Your task to perform on an android device: open a bookmark in the chrome app Image 0: 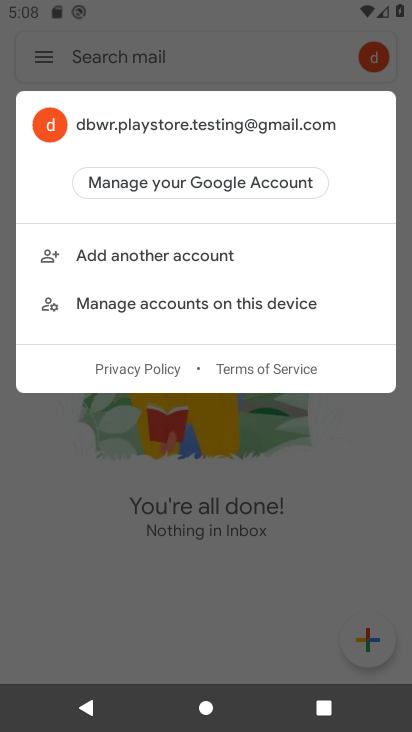
Step 0: press home button
Your task to perform on an android device: open a bookmark in the chrome app Image 1: 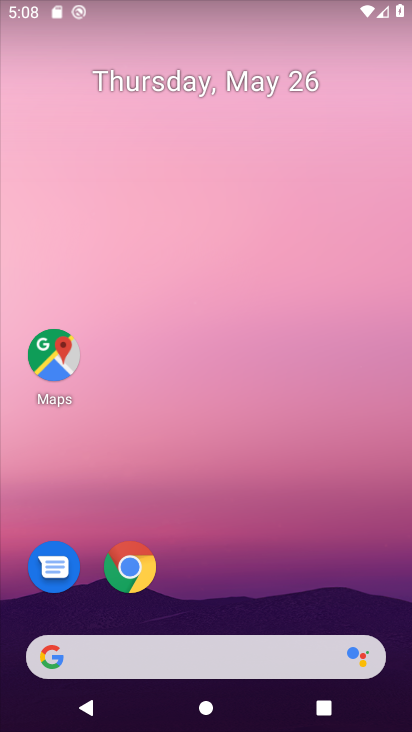
Step 1: click (121, 579)
Your task to perform on an android device: open a bookmark in the chrome app Image 2: 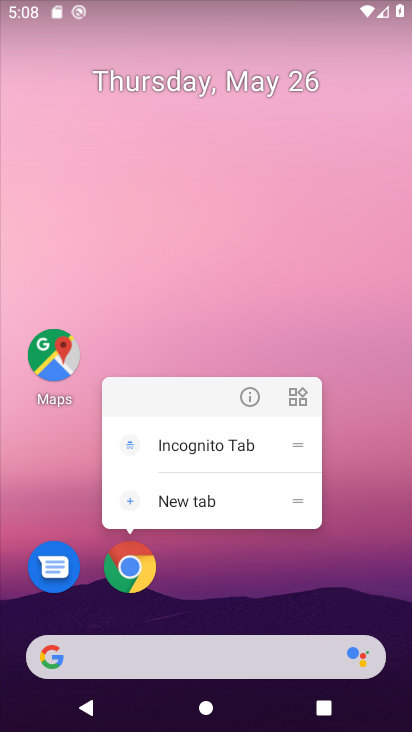
Step 2: click (127, 572)
Your task to perform on an android device: open a bookmark in the chrome app Image 3: 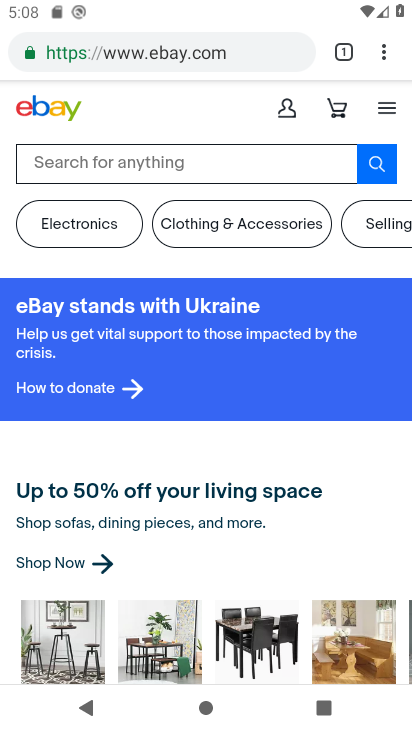
Step 3: click (382, 52)
Your task to perform on an android device: open a bookmark in the chrome app Image 4: 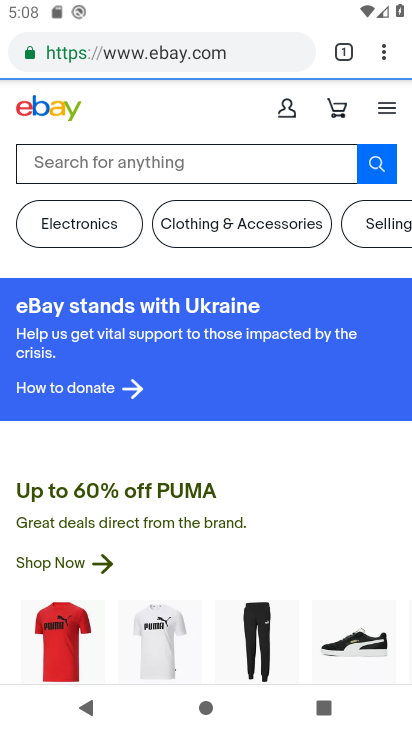
Step 4: click (382, 52)
Your task to perform on an android device: open a bookmark in the chrome app Image 5: 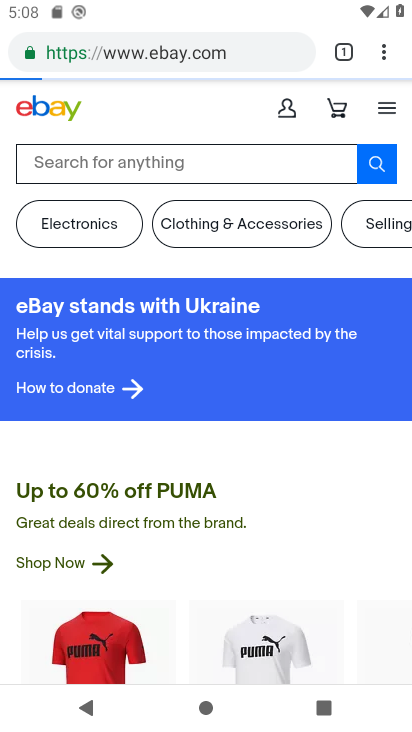
Step 5: task complete